Your task to perform on an android device: change the clock style Image 0: 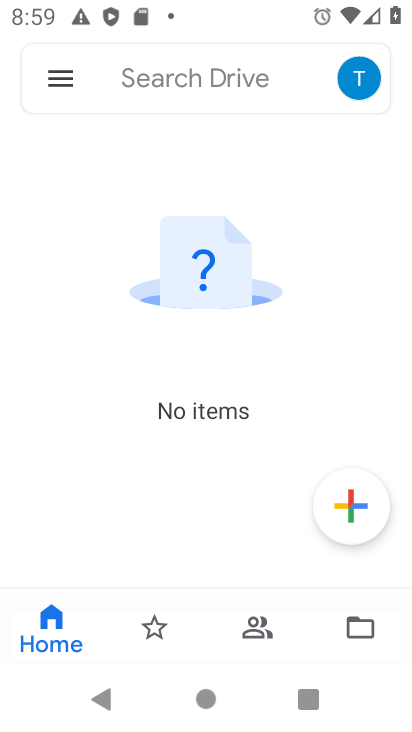
Step 0: press home button
Your task to perform on an android device: change the clock style Image 1: 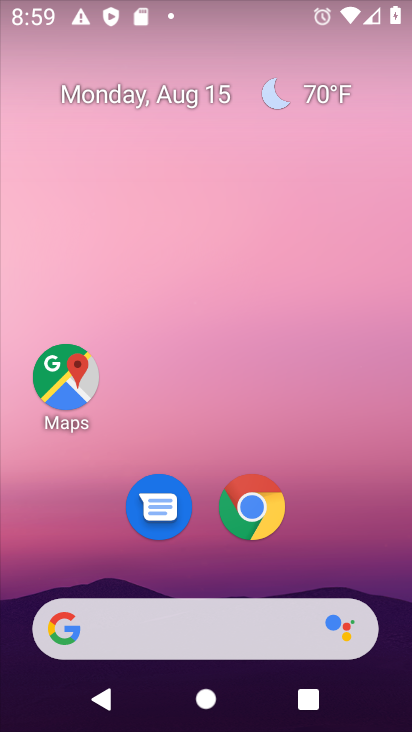
Step 1: drag from (139, 581) to (89, 12)
Your task to perform on an android device: change the clock style Image 2: 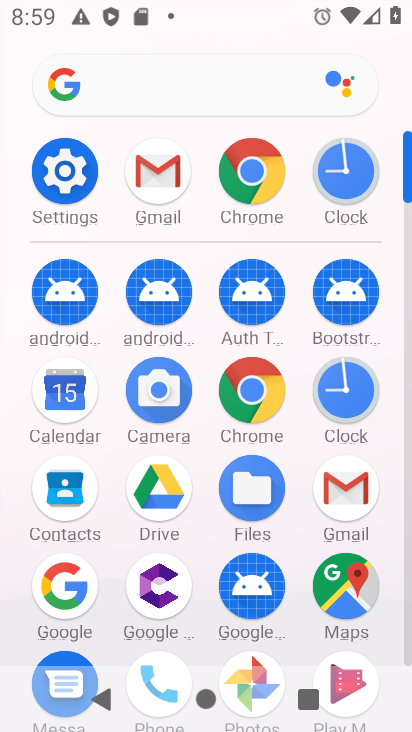
Step 2: click (338, 171)
Your task to perform on an android device: change the clock style Image 3: 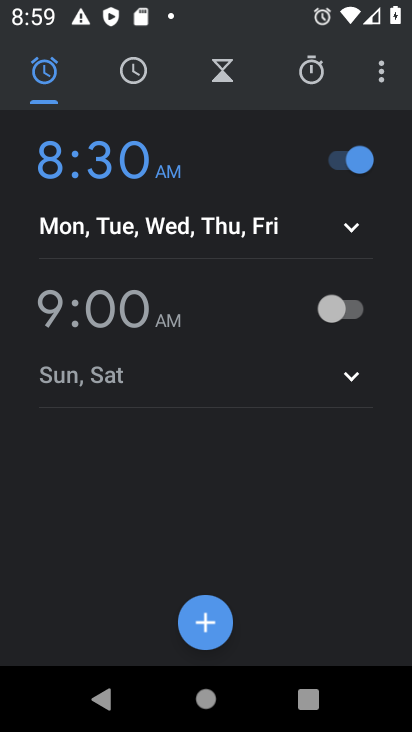
Step 3: click (374, 80)
Your task to perform on an android device: change the clock style Image 4: 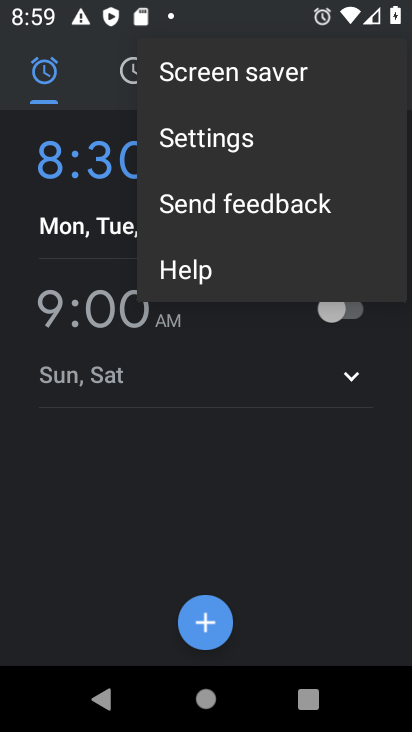
Step 4: click (223, 150)
Your task to perform on an android device: change the clock style Image 5: 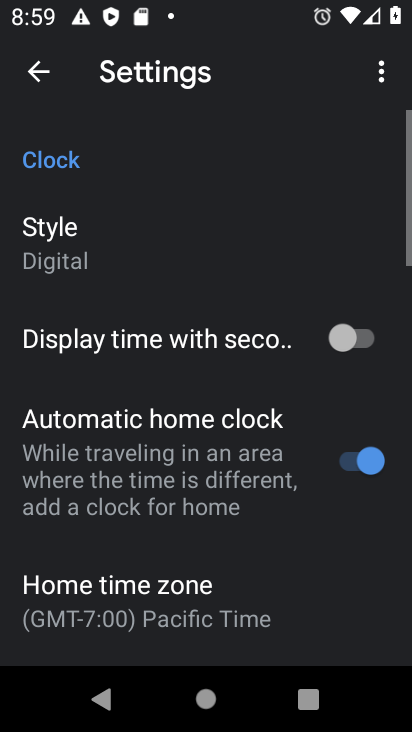
Step 5: click (42, 244)
Your task to perform on an android device: change the clock style Image 6: 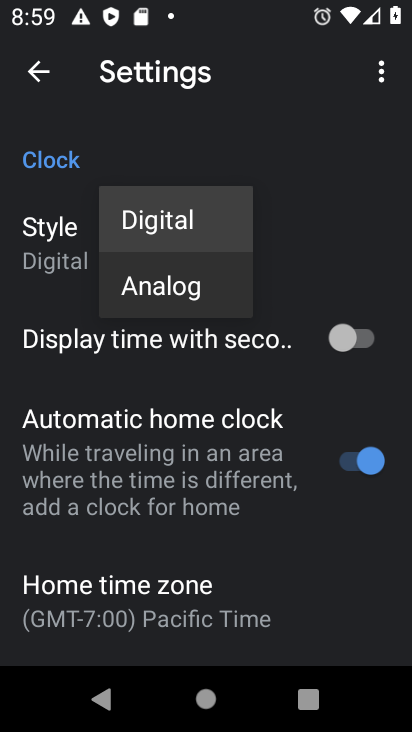
Step 6: click (158, 295)
Your task to perform on an android device: change the clock style Image 7: 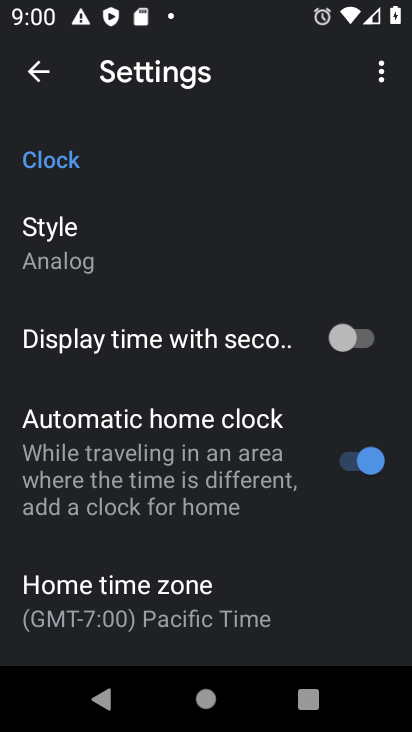
Step 7: task complete